Your task to perform on an android device: set an alarm Image 0: 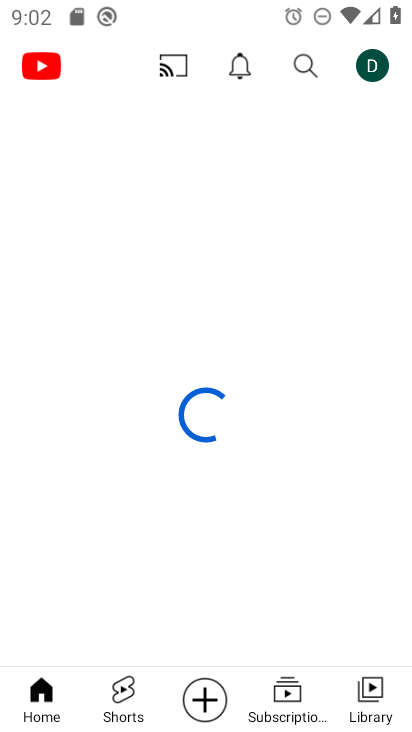
Step 0: press home button
Your task to perform on an android device: set an alarm Image 1: 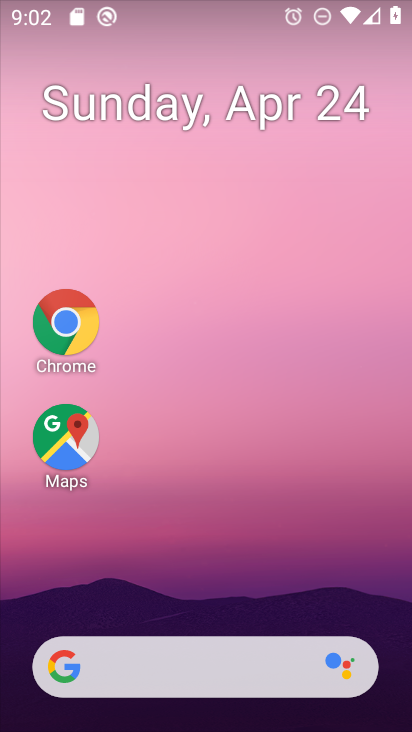
Step 1: drag from (273, 520) to (256, 27)
Your task to perform on an android device: set an alarm Image 2: 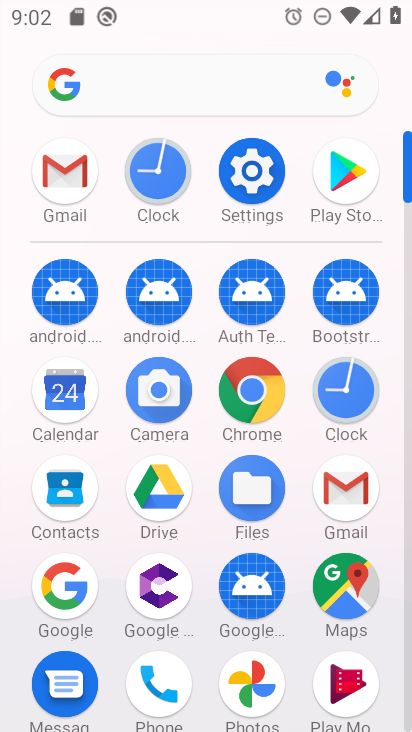
Step 2: click (353, 392)
Your task to perform on an android device: set an alarm Image 3: 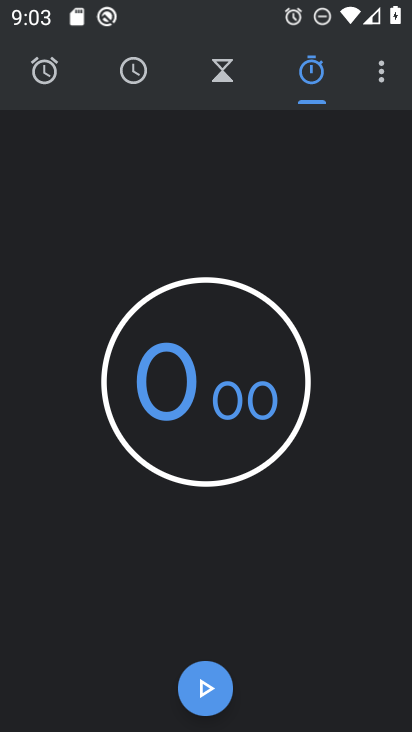
Step 3: click (47, 75)
Your task to perform on an android device: set an alarm Image 4: 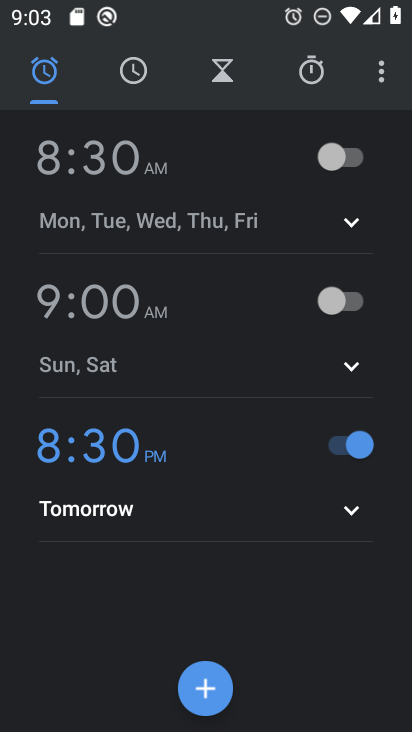
Step 4: click (200, 680)
Your task to perform on an android device: set an alarm Image 5: 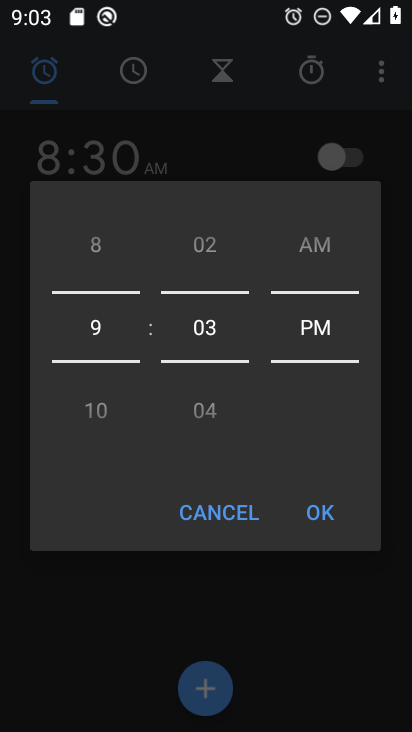
Step 5: click (322, 515)
Your task to perform on an android device: set an alarm Image 6: 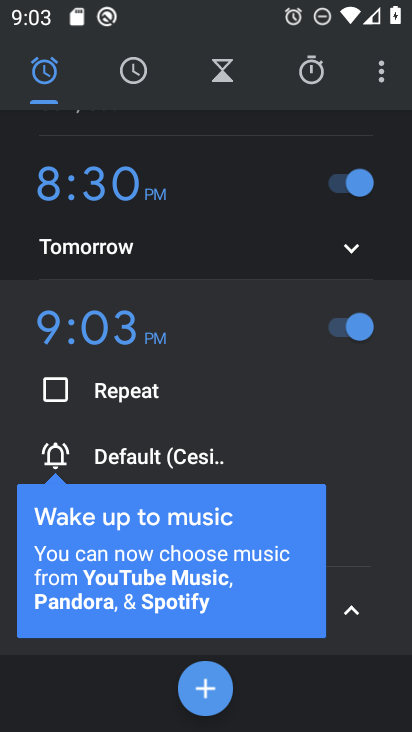
Step 6: task complete